Your task to perform on an android device: turn on priority inbox in the gmail app Image 0: 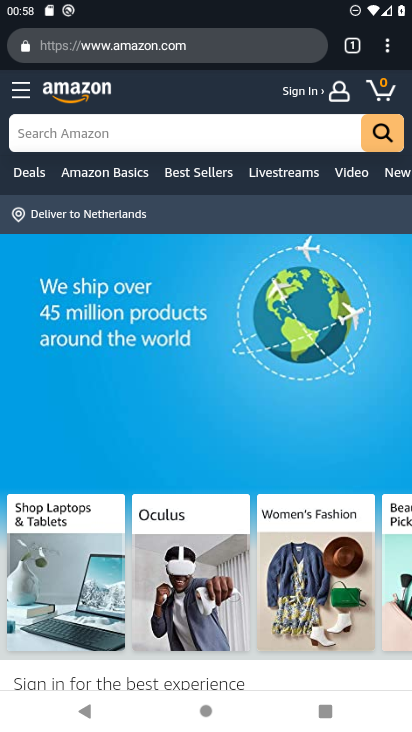
Step 0: press home button
Your task to perform on an android device: turn on priority inbox in the gmail app Image 1: 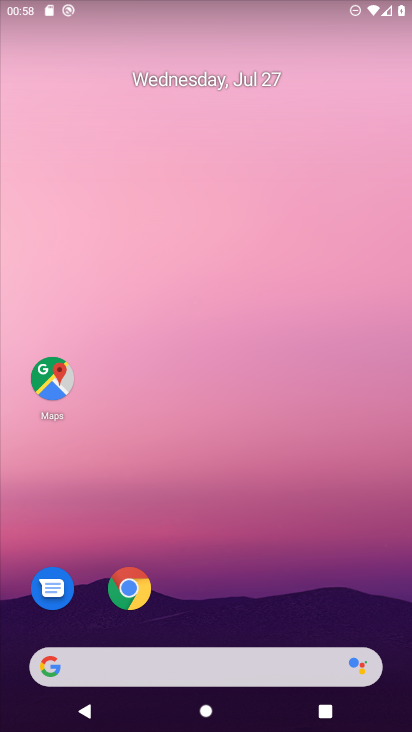
Step 1: drag from (35, 729) to (323, 201)
Your task to perform on an android device: turn on priority inbox in the gmail app Image 2: 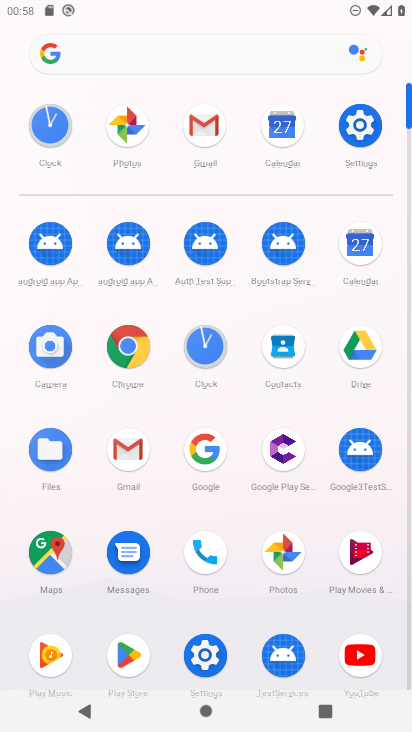
Step 2: click (120, 456)
Your task to perform on an android device: turn on priority inbox in the gmail app Image 3: 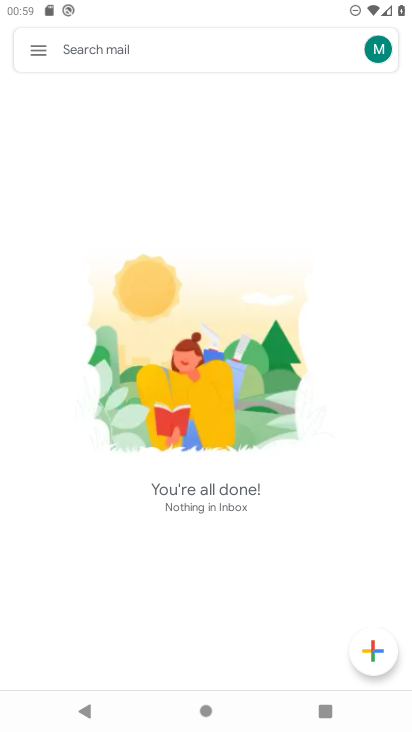
Step 3: click (33, 47)
Your task to perform on an android device: turn on priority inbox in the gmail app Image 4: 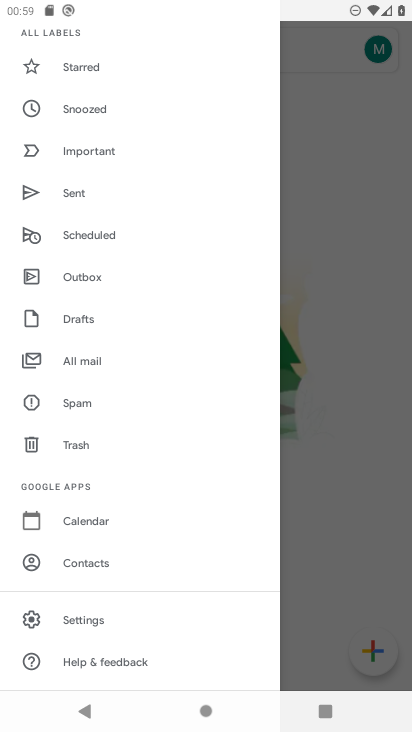
Step 4: click (70, 625)
Your task to perform on an android device: turn on priority inbox in the gmail app Image 5: 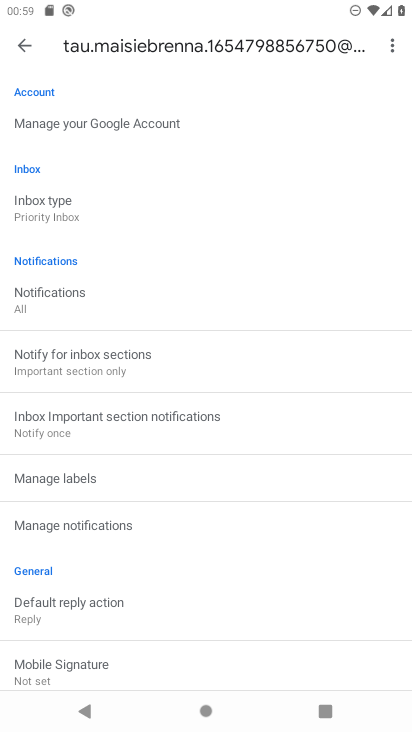
Step 5: task complete